Your task to perform on an android device: Empty the shopping cart on ebay.com. Search for "bose soundlink" on ebay.com, select the first entry, and add it to the cart. Image 0: 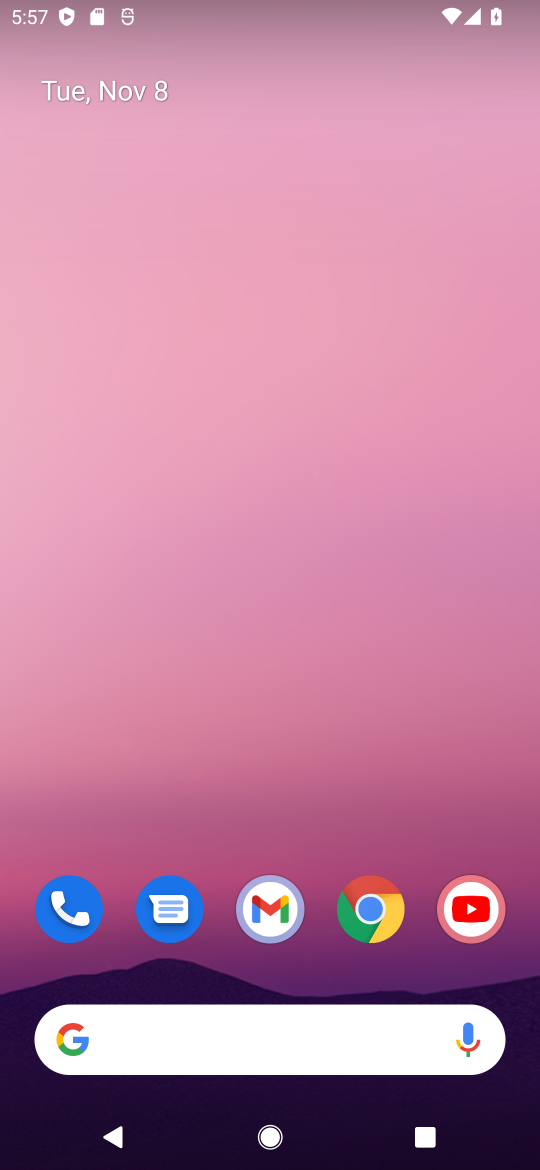
Step 0: click (381, 905)
Your task to perform on an android device: Empty the shopping cart on ebay.com. Search for "bose soundlink" on ebay.com, select the first entry, and add it to the cart. Image 1: 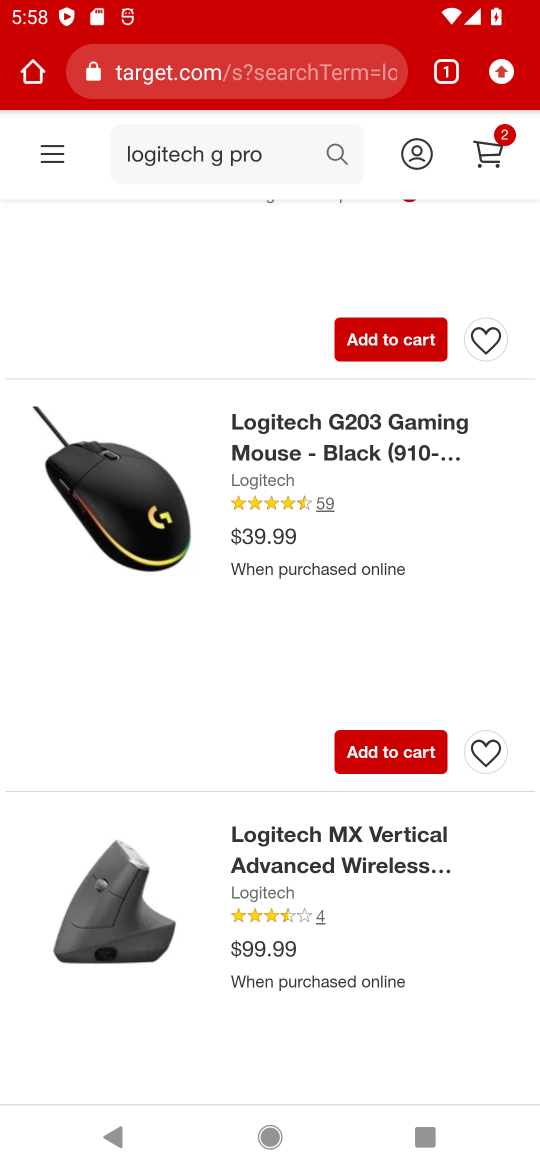
Step 1: click (329, 65)
Your task to perform on an android device: Empty the shopping cart on ebay.com. Search for "bose soundlink" on ebay.com, select the first entry, and add it to the cart. Image 2: 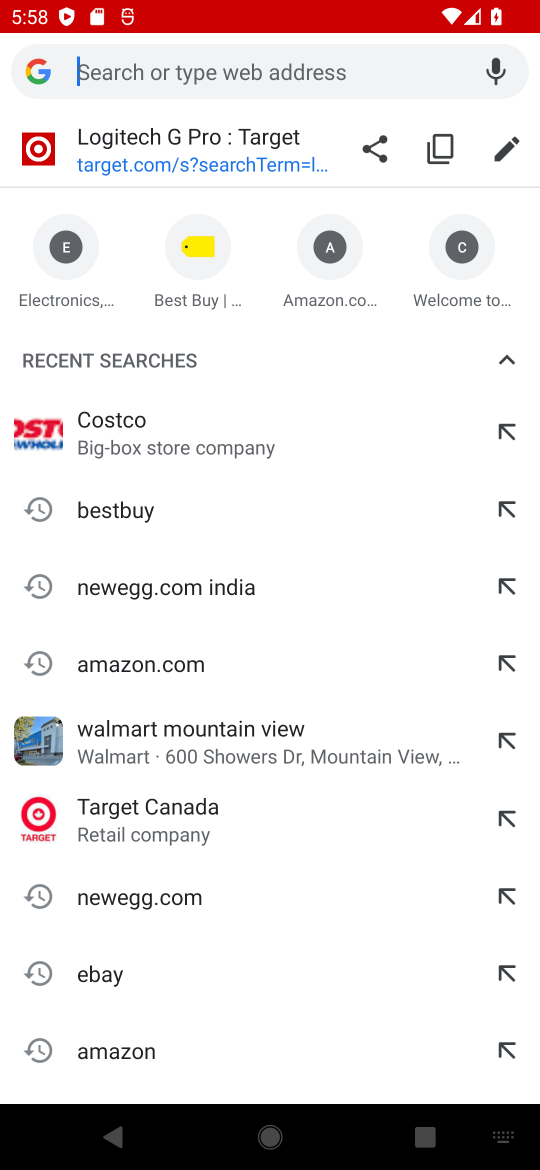
Step 2: click (75, 284)
Your task to perform on an android device: Empty the shopping cart on ebay.com. Search for "bose soundlink" on ebay.com, select the first entry, and add it to the cart. Image 3: 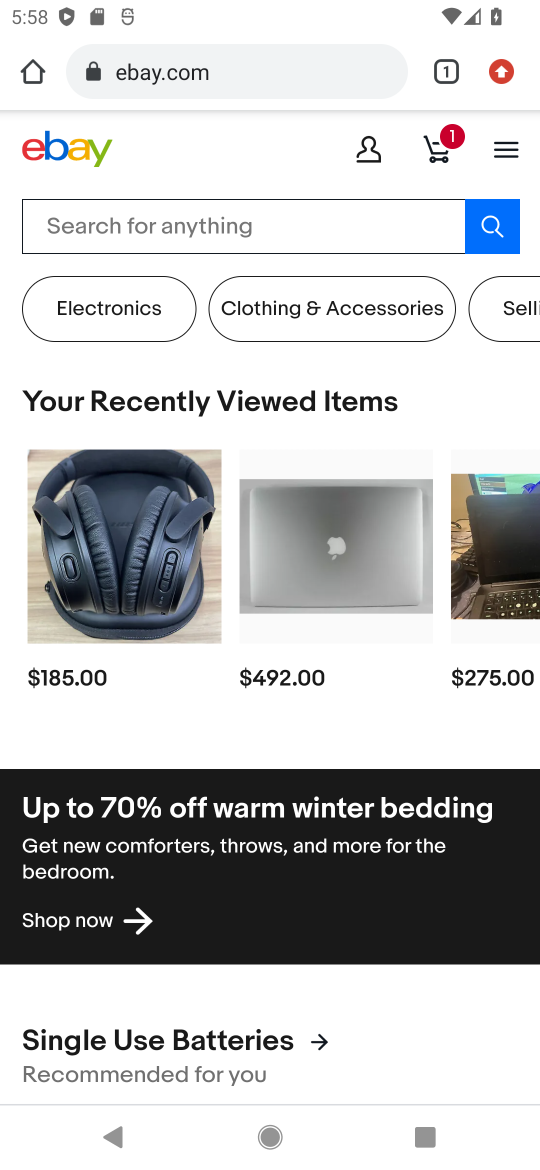
Step 3: click (100, 207)
Your task to perform on an android device: Empty the shopping cart on ebay.com. Search for "bose soundlink" on ebay.com, select the first entry, and add it to the cart. Image 4: 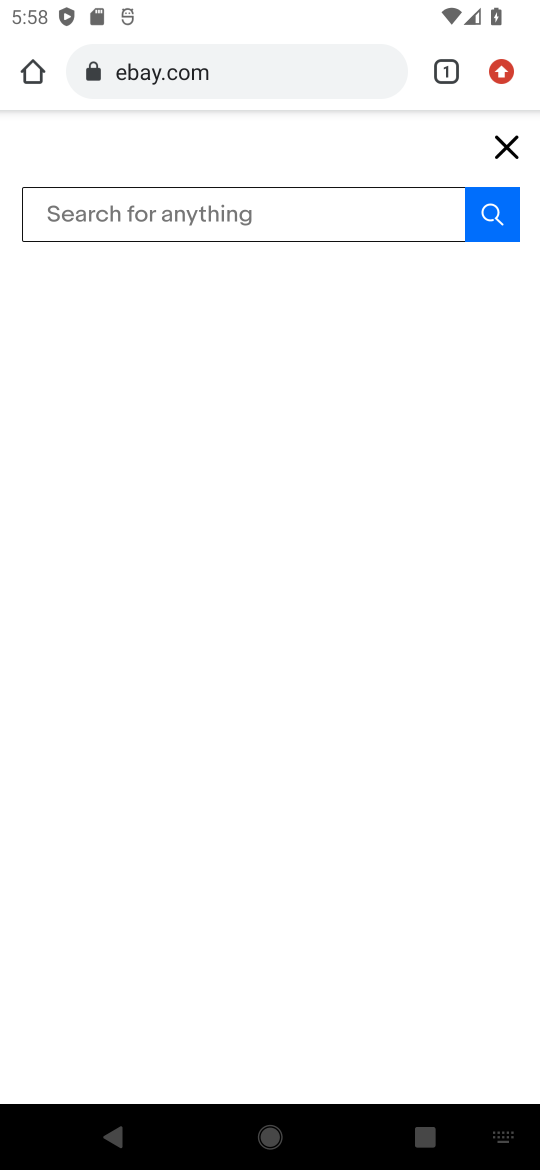
Step 4: type "bose soundlink"
Your task to perform on an android device: Empty the shopping cart on ebay.com. Search for "bose soundlink" on ebay.com, select the first entry, and add it to the cart. Image 5: 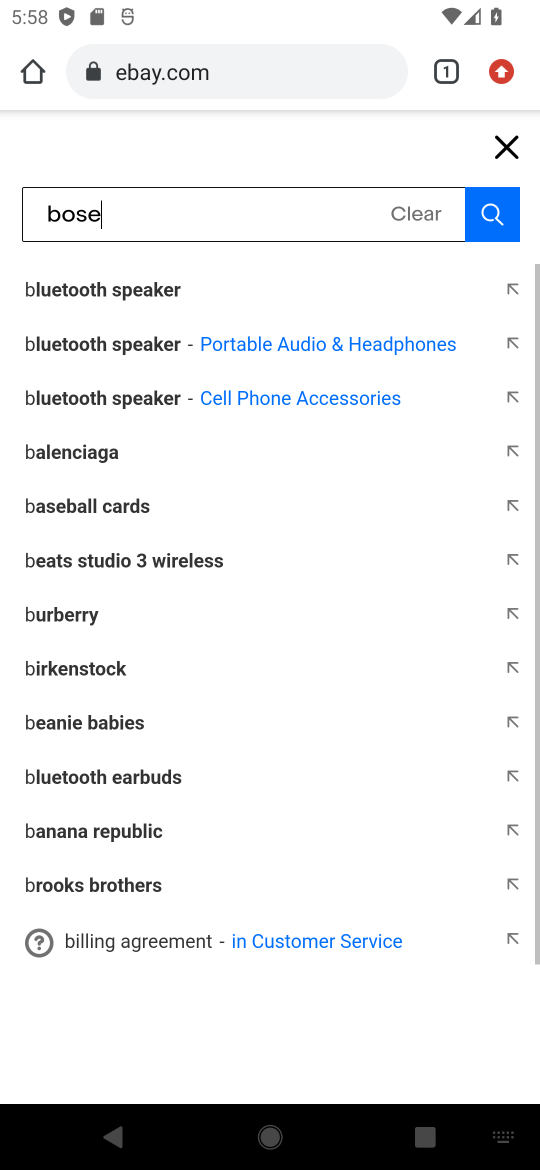
Step 5: press enter
Your task to perform on an android device: Empty the shopping cart on ebay.com. Search for "bose soundlink" on ebay.com, select the first entry, and add it to the cart. Image 6: 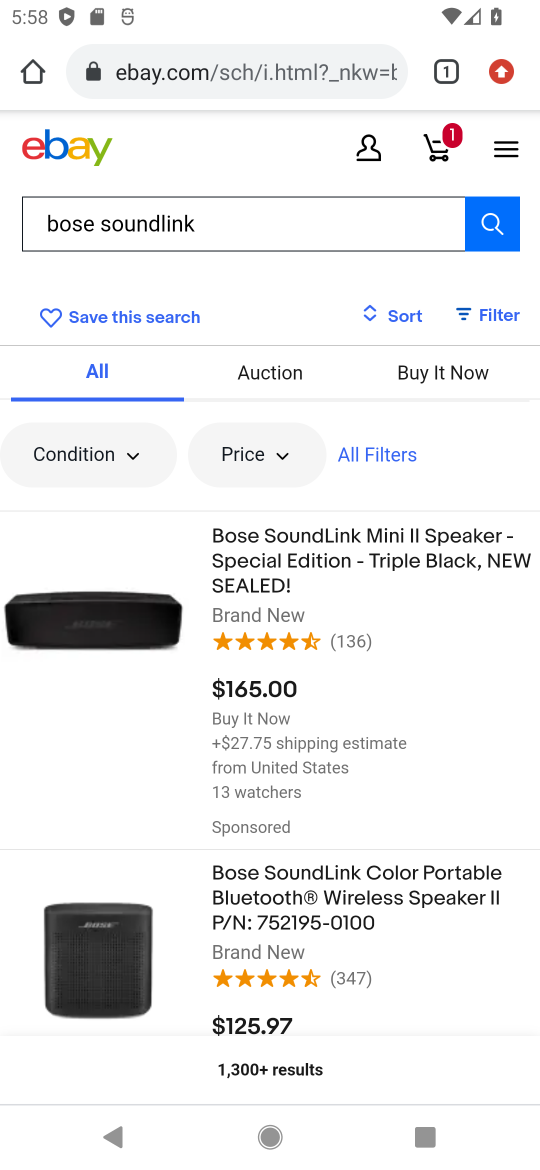
Step 6: click (298, 572)
Your task to perform on an android device: Empty the shopping cart on ebay.com. Search for "bose soundlink" on ebay.com, select the first entry, and add it to the cart. Image 7: 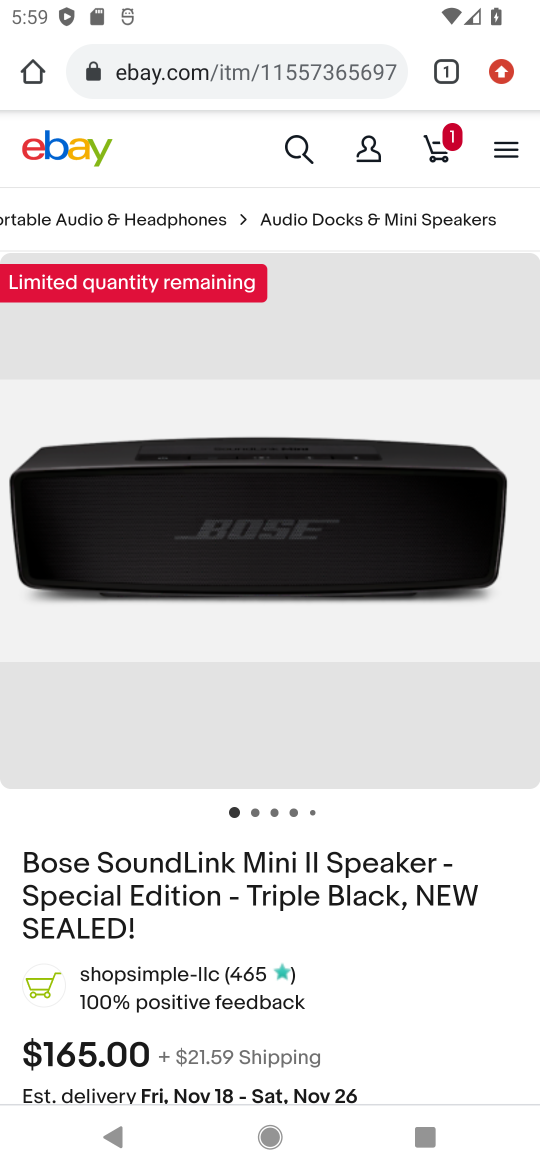
Step 7: drag from (338, 1011) to (338, 267)
Your task to perform on an android device: Empty the shopping cart on ebay.com. Search for "bose soundlink" on ebay.com, select the first entry, and add it to the cart. Image 8: 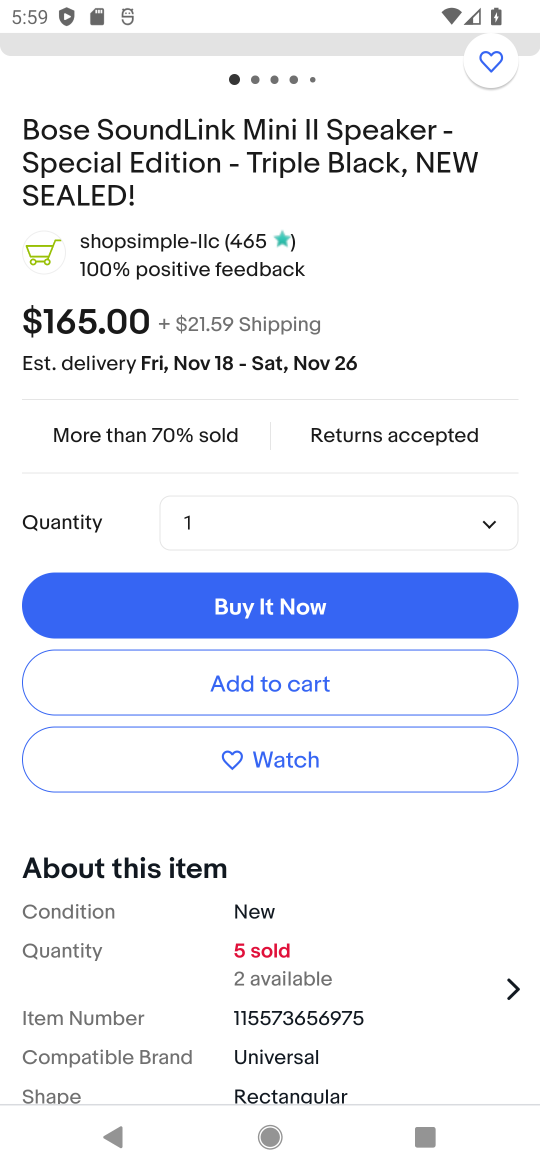
Step 8: click (301, 673)
Your task to perform on an android device: Empty the shopping cart on ebay.com. Search for "bose soundlink" on ebay.com, select the first entry, and add it to the cart. Image 9: 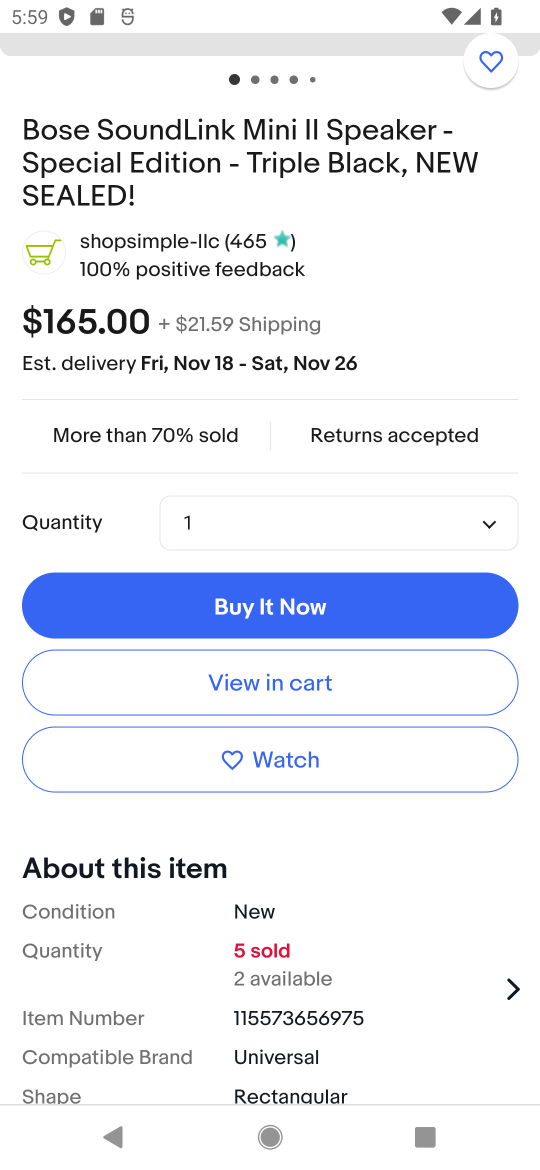
Step 9: task complete